Your task to perform on an android device: Open internet settings Image 0: 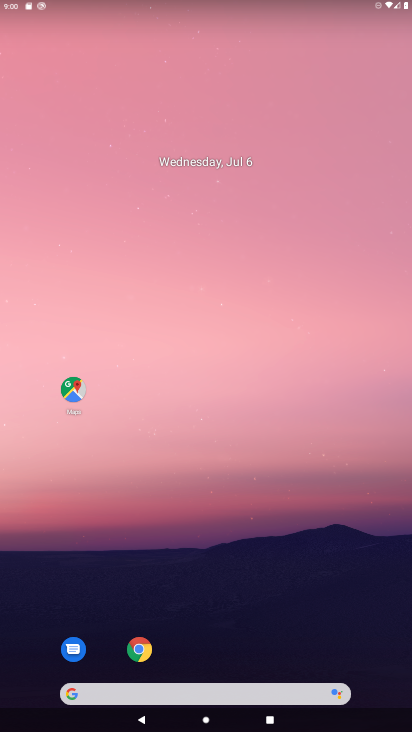
Step 0: drag from (260, 592) to (194, 90)
Your task to perform on an android device: Open internet settings Image 1: 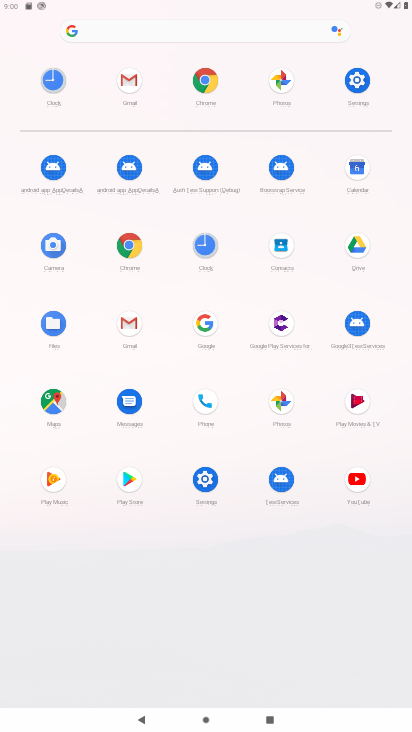
Step 1: click (358, 82)
Your task to perform on an android device: Open internet settings Image 2: 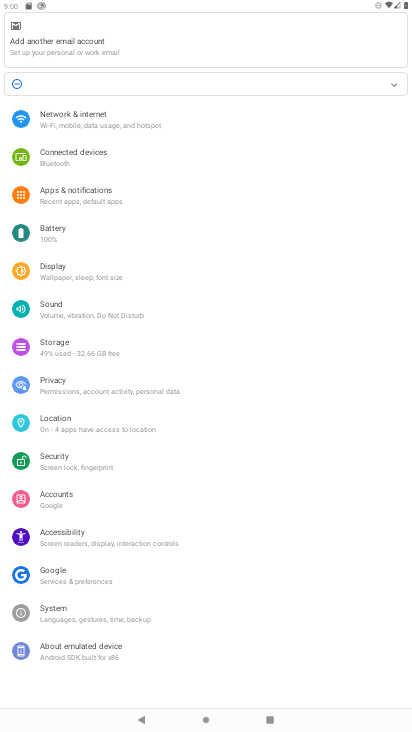
Step 2: click (88, 126)
Your task to perform on an android device: Open internet settings Image 3: 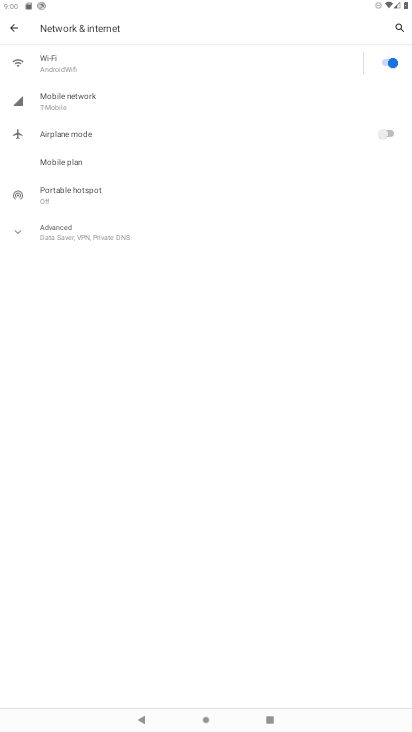
Step 3: click (66, 107)
Your task to perform on an android device: Open internet settings Image 4: 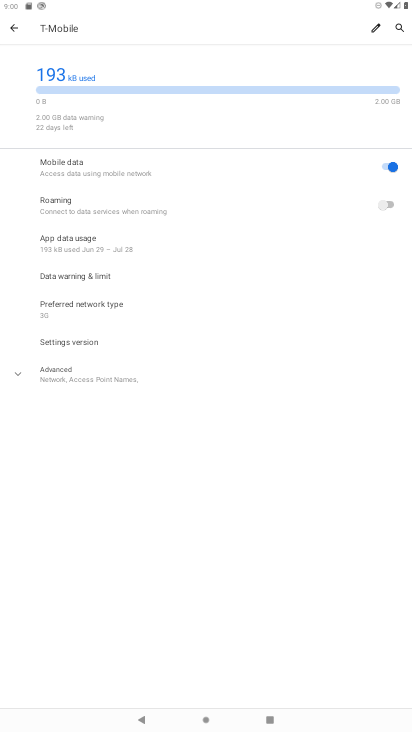
Step 4: task complete